Your task to perform on an android device: Go to Yahoo.com Image 0: 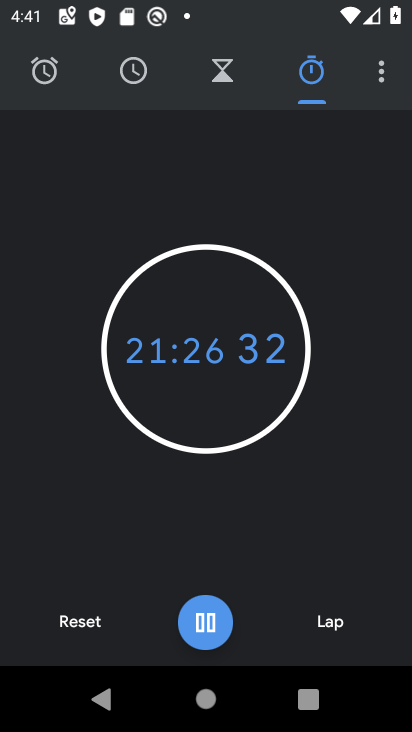
Step 0: press home button
Your task to perform on an android device: Go to Yahoo.com Image 1: 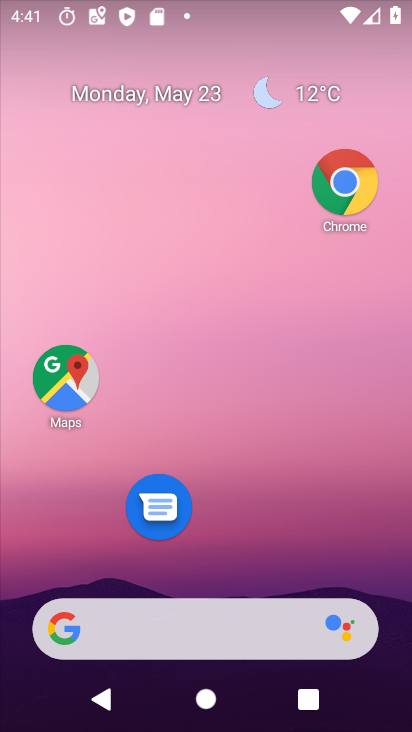
Step 1: click (359, 173)
Your task to perform on an android device: Go to Yahoo.com Image 2: 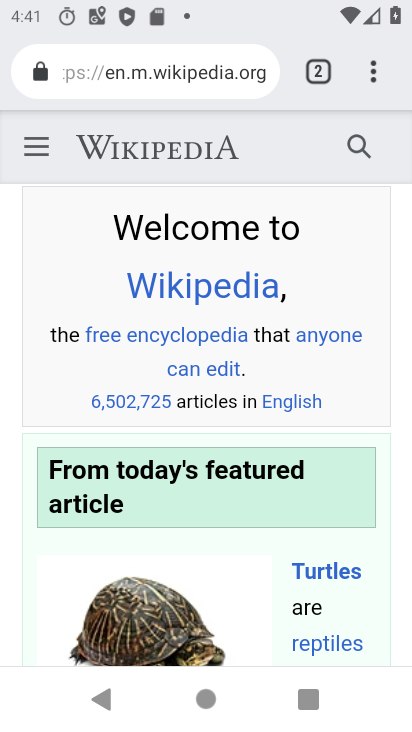
Step 2: click (324, 72)
Your task to perform on an android device: Go to Yahoo.com Image 3: 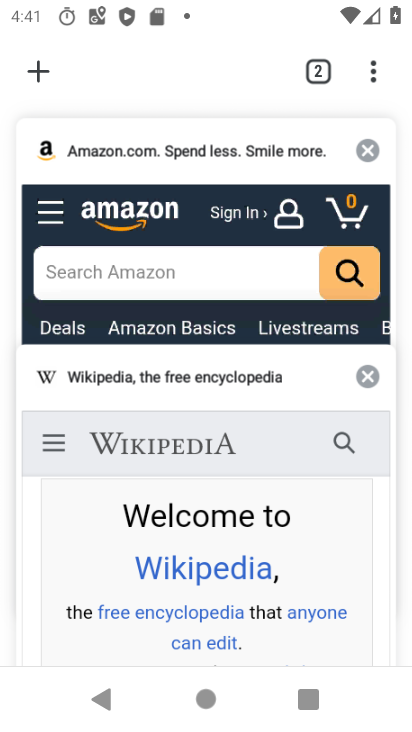
Step 3: click (47, 60)
Your task to perform on an android device: Go to Yahoo.com Image 4: 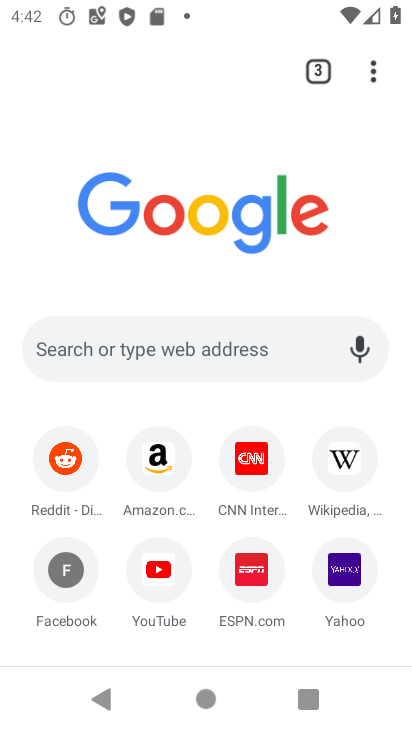
Step 4: click (350, 578)
Your task to perform on an android device: Go to Yahoo.com Image 5: 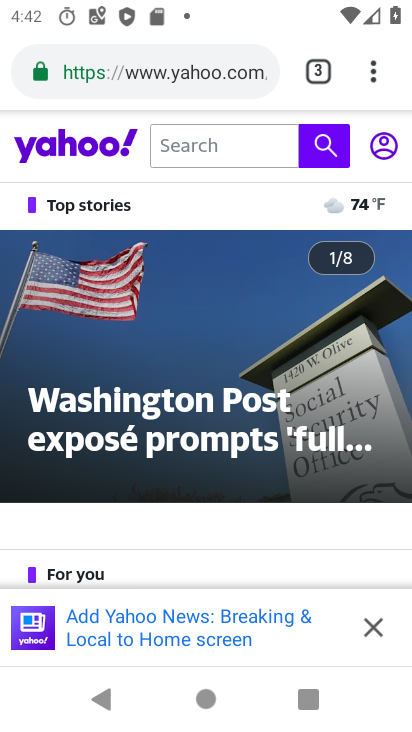
Step 5: task complete